Your task to perform on an android device: change your default location settings in chrome Image 0: 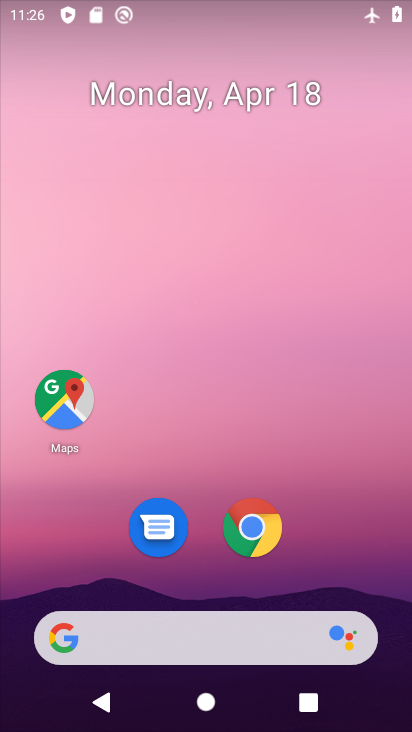
Step 0: click (269, 526)
Your task to perform on an android device: change your default location settings in chrome Image 1: 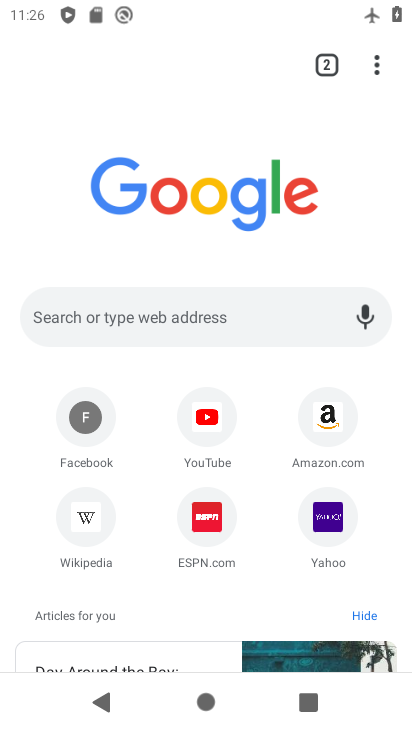
Step 1: click (370, 65)
Your task to perform on an android device: change your default location settings in chrome Image 2: 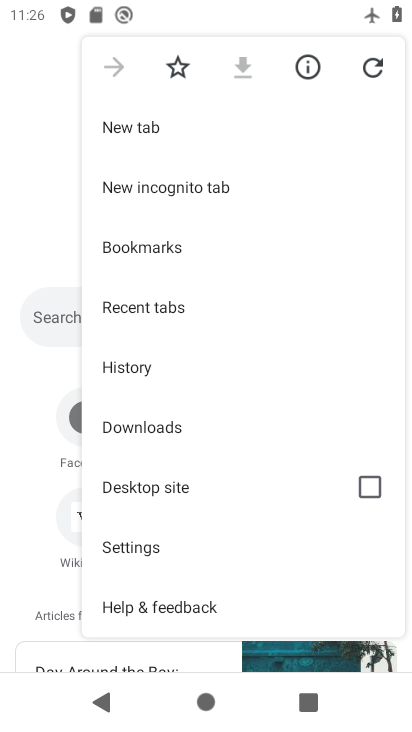
Step 2: click (219, 543)
Your task to perform on an android device: change your default location settings in chrome Image 3: 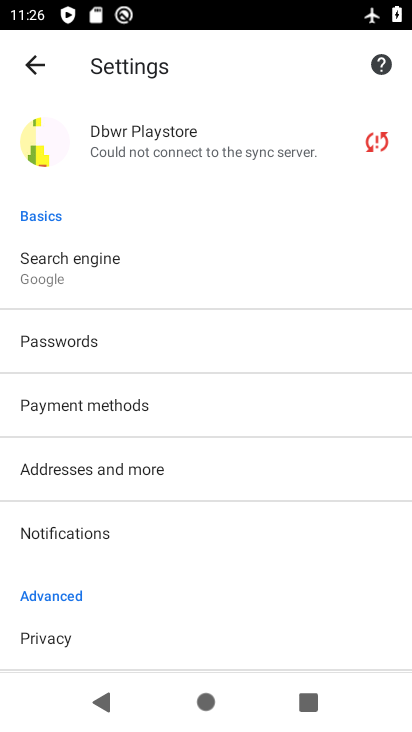
Step 3: drag from (248, 476) to (257, 321)
Your task to perform on an android device: change your default location settings in chrome Image 4: 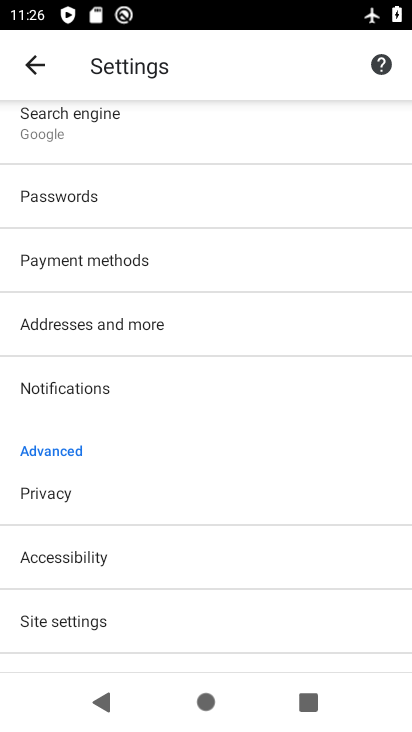
Step 4: click (233, 602)
Your task to perform on an android device: change your default location settings in chrome Image 5: 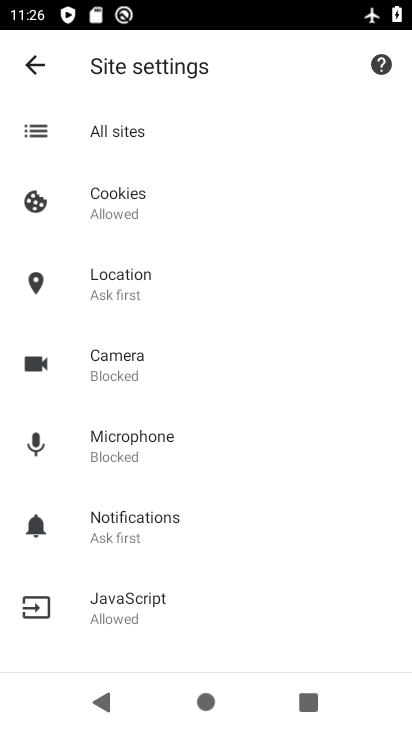
Step 5: click (239, 285)
Your task to perform on an android device: change your default location settings in chrome Image 6: 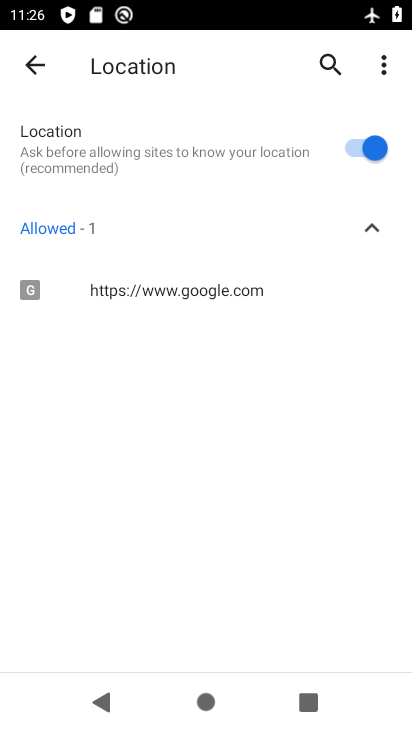
Step 6: click (327, 165)
Your task to perform on an android device: change your default location settings in chrome Image 7: 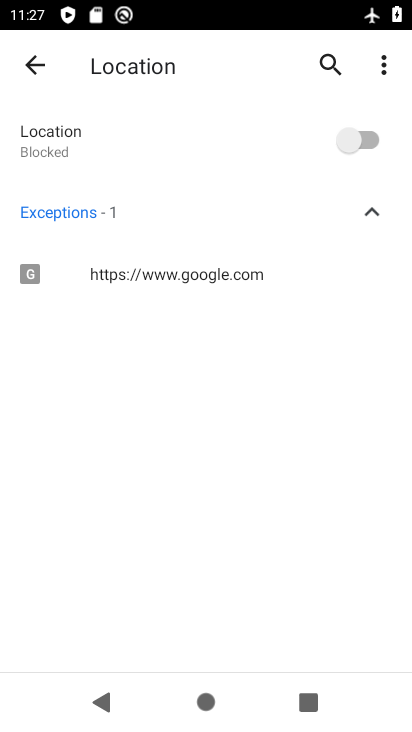
Step 7: task complete